Your task to perform on an android device: Open calendar and show me the second week of next month Image 0: 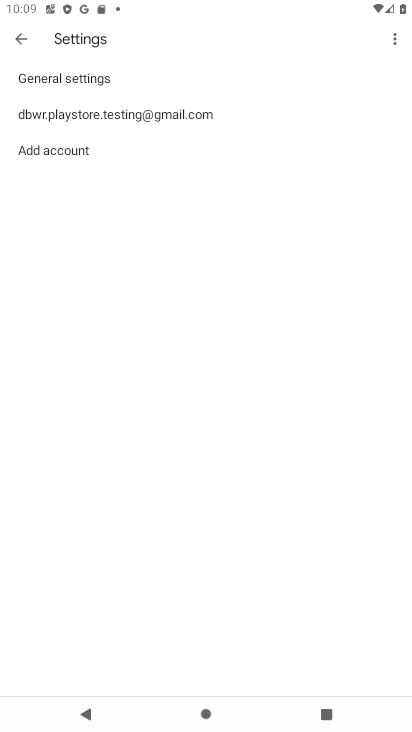
Step 0: press home button
Your task to perform on an android device: Open calendar and show me the second week of next month Image 1: 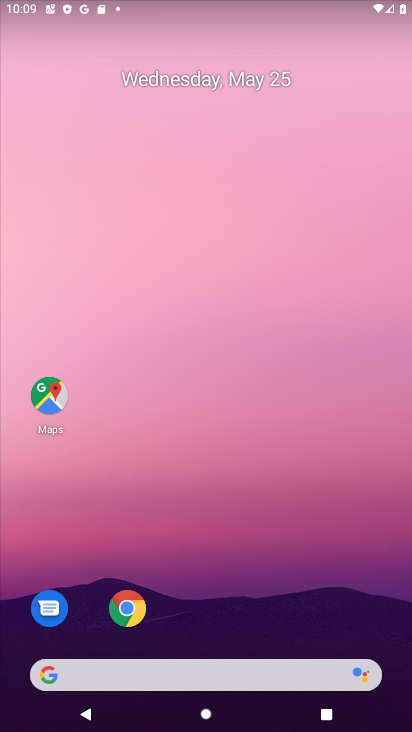
Step 1: drag from (286, 637) to (277, 2)
Your task to perform on an android device: Open calendar and show me the second week of next month Image 2: 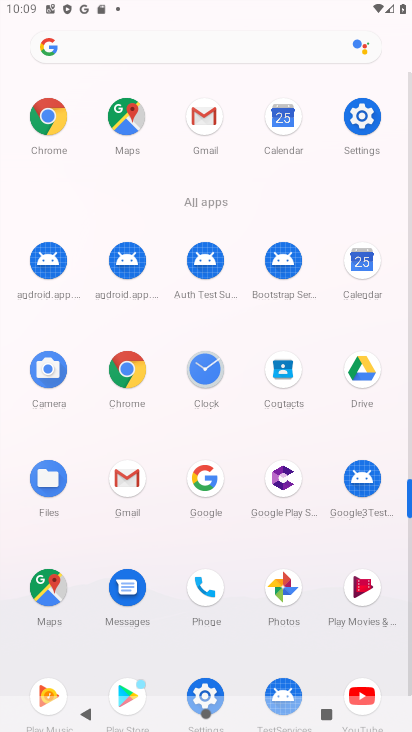
Step 2: click (287, 121)
Your task to perform on an android device: Open calendar and show me the second week of next month Image 3: 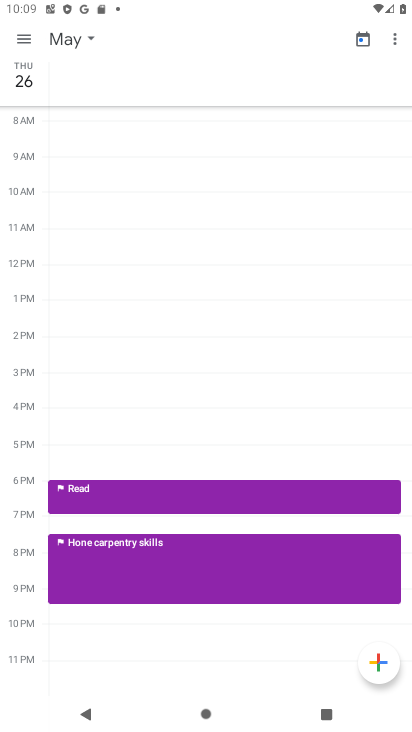
Step 3: click (31, 40)
Your task to perform on an android device: Open calendar and show me the second week of next month Image 4: 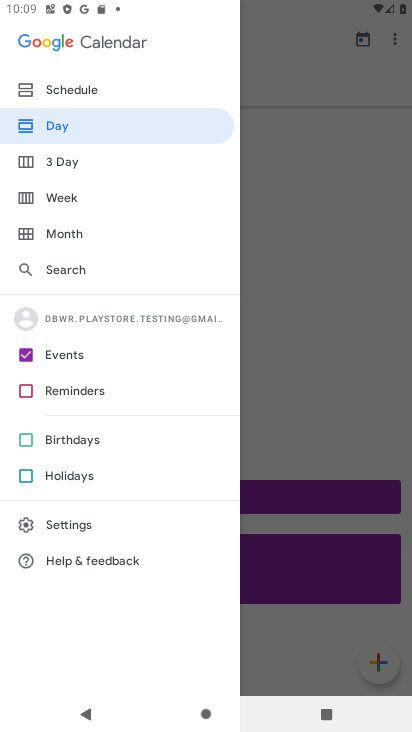
Step 4: click (364, 47)
Your task to perform on an android device: Open calendar and show me the second week of next month Image 5: 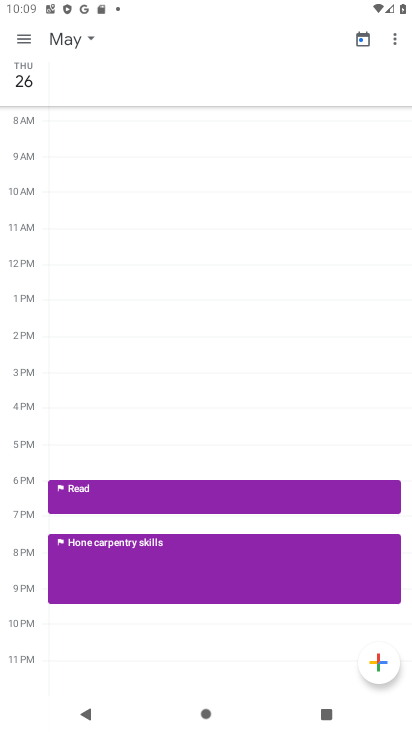
Step 5: click (363, 47)
Your task to perform on an android device: Open calendar and show me the second week of next month Image 6: 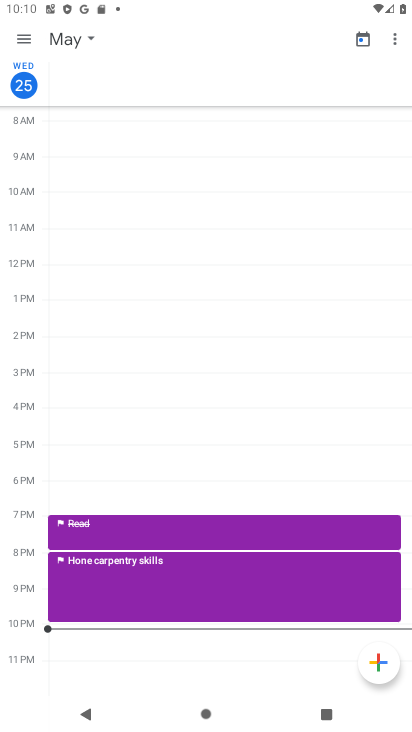
Step 6: click (92, 36)
Your task to perform on an android device: Open calendar and show me the second week of next month Image 7: 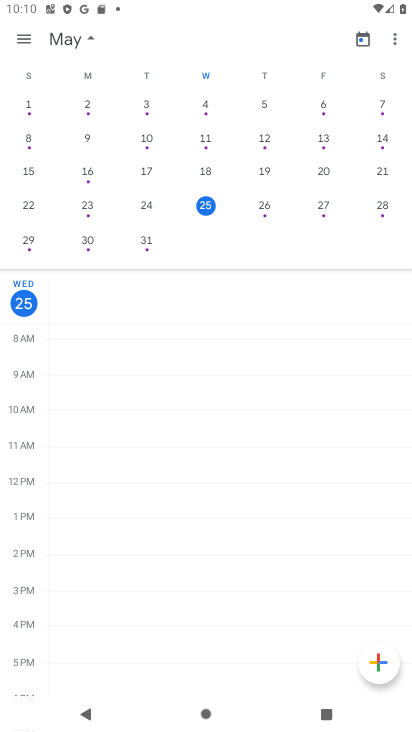
Step 7: drag from (386, 135) to (34, 51)
Your task to perform on an android device: Open calendar and show me the second week of next month Image 8: 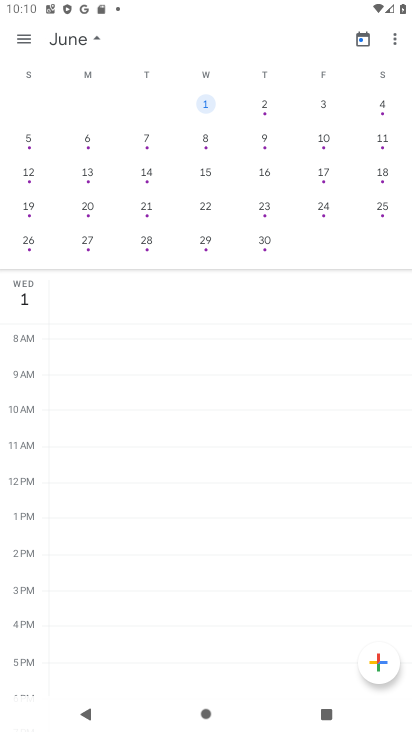
Step 8: click (20, 37)
Your task to perform on an android device: Open calendar and show me the second week of next month Image 9: 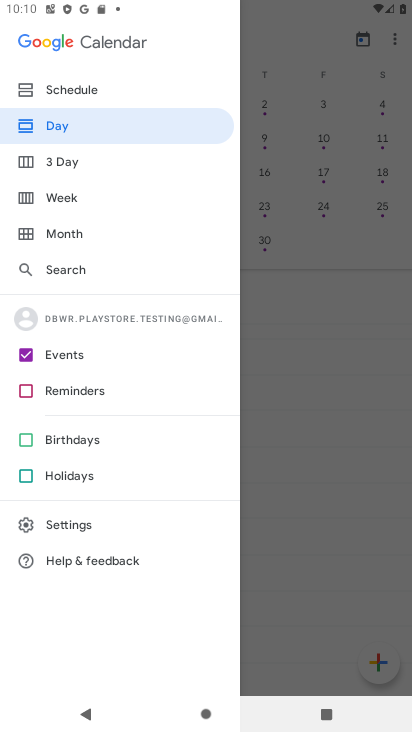
Step 9: click (48, 203)
Your task to perform on an android device: Open calendar and show me the second week of next month Image 10: 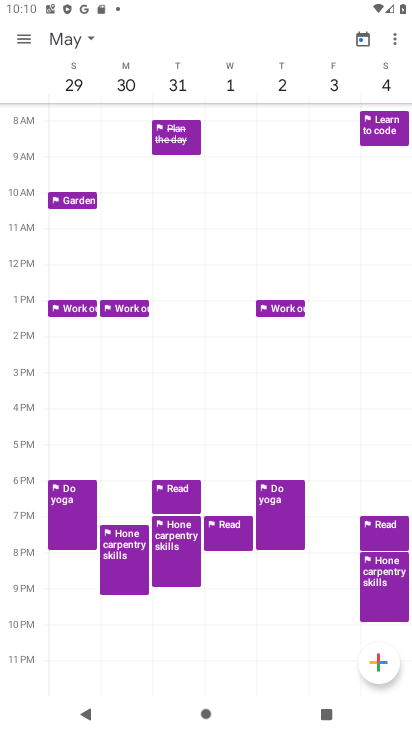
Step 10: task complete